Your task to perform on an android device: Show me recent news Image 0: 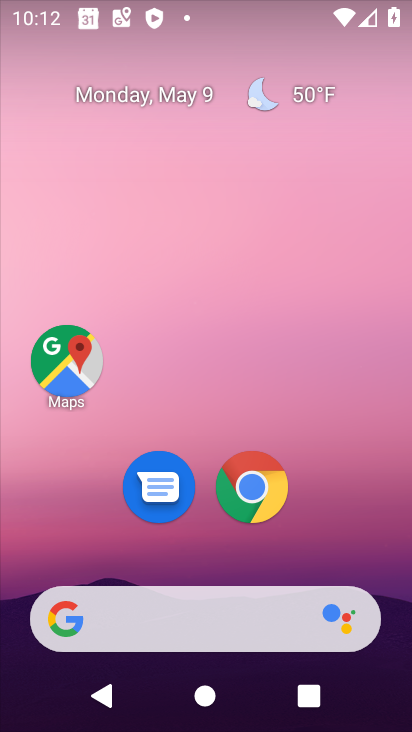
Step 0: press home button
Your task to perform on an android device: Show me recent news Image 1: 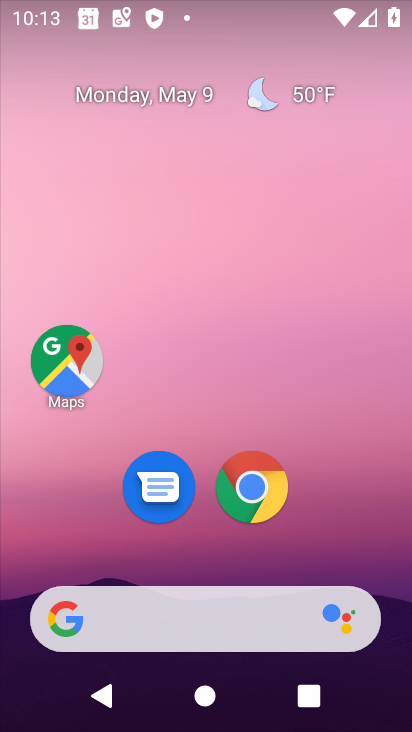
Step 1: click (163, 612)
Your task to perform on an android device: Show me recent news Image 2: 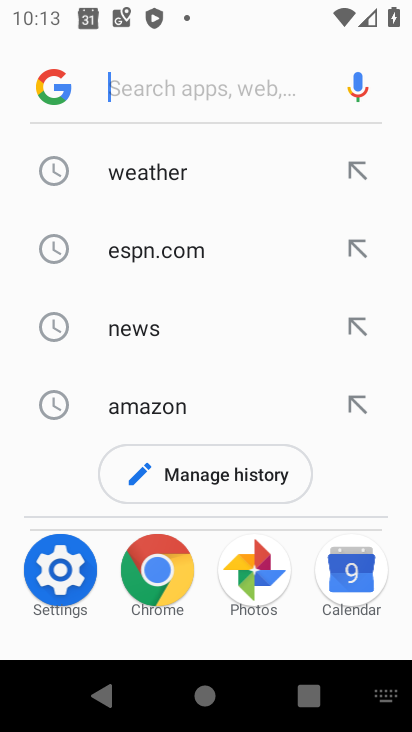
Step 2: click (117, 331)
Your task to perform on an android device: Show me recent news Image 3: 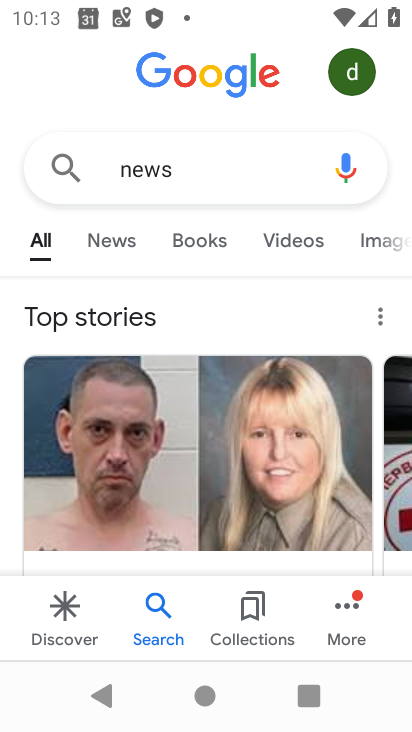
Step 3: task complete